Your task to perform on an android device: visit the assistant section in the google photos Image 0: 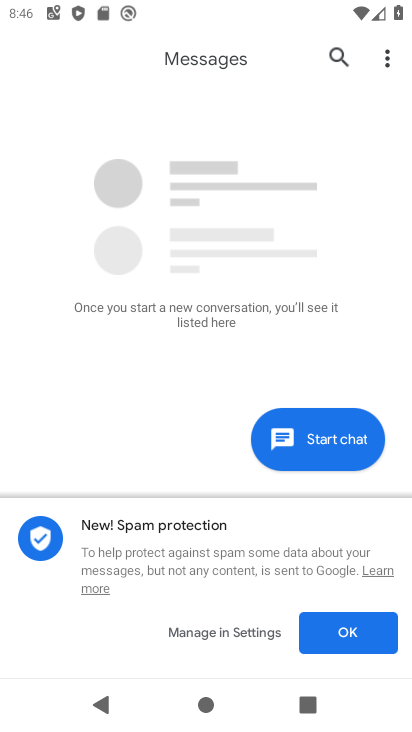
Step 0: press home button
Your task to perform on an android device: visit the assistant section in the google photos Image 1: 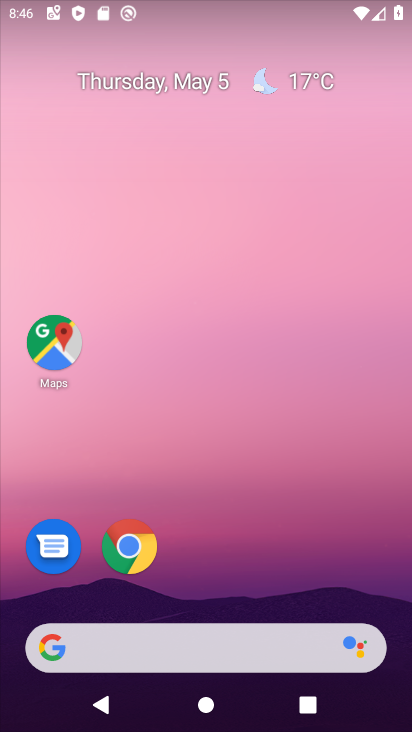
Step 1: drag from (219, 649) to (395, 64)
Your task to perform on an android device: visit the assistant section in the google photos Image 2: 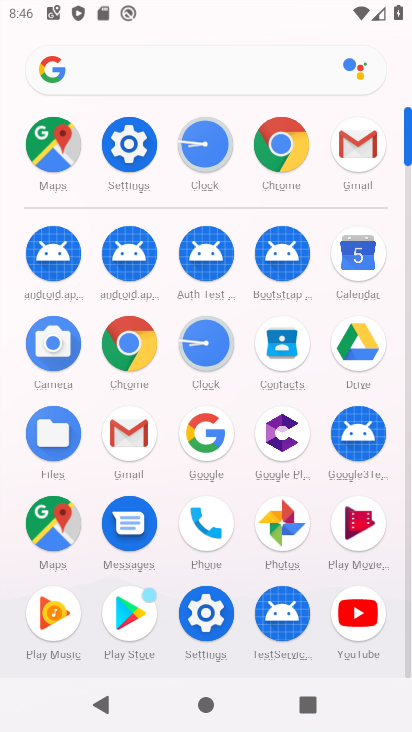
Step 2: click (281, 528)
Your task to perform on an android device: visit the assistant section in the google photos Image 3: 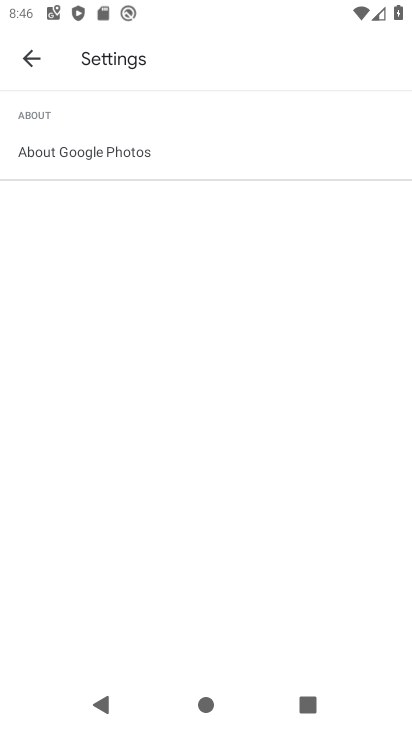
Step 3: click (30, 61)
Your task to perform on an android device: visit the assistant section in the google photos Image 4: 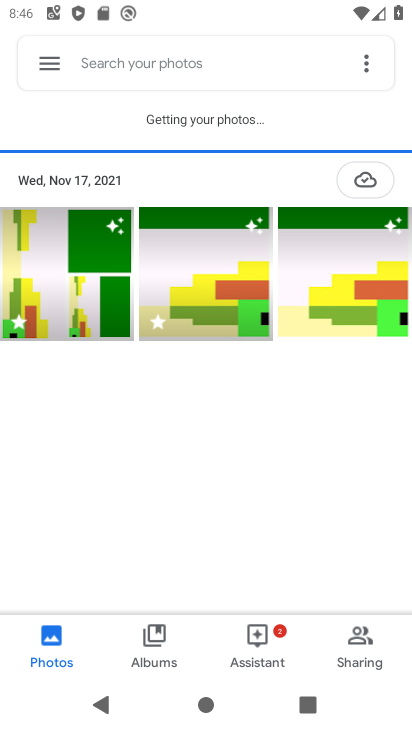
Step 4: click (248, 655)
Your task to perform on an android device: visit the assistant section in the google photos Image 5: 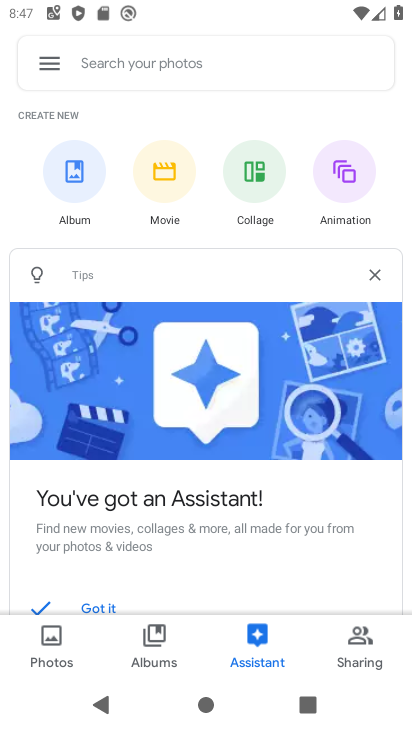
Step 5: task complete